Your task to perform on an android device: Search for Italian restaurants on Maps Image 0: 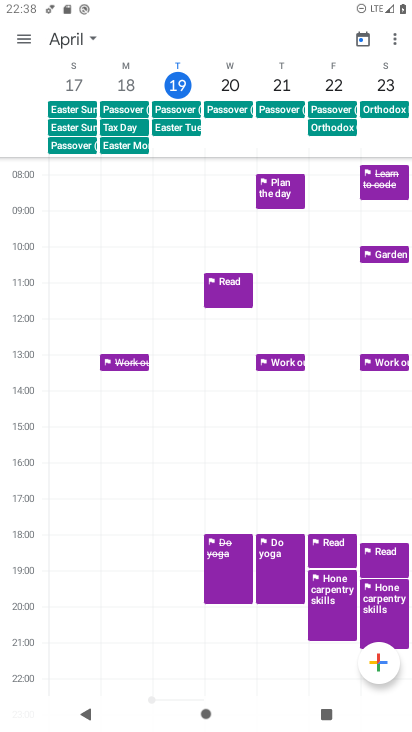
Step 0: press home button
Your task to perform on an android device: Search for Italian restaurants on Maps Image 1: 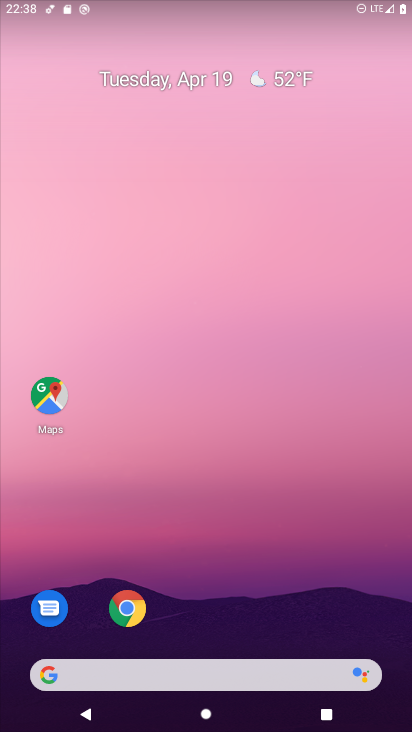
Step 1: click (39, 394)
Your task to perform on an android device: Search for Italian restaurants on Maps Image 2: 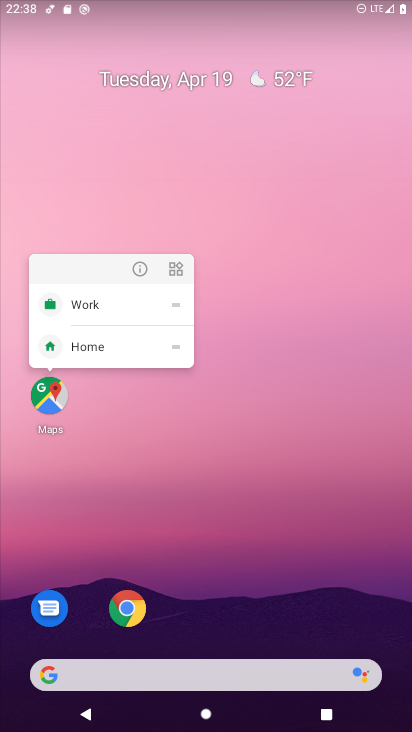
Step 2: click (37, 398)
Your task to perform on an android device: Search for Italian restaurants on Maps Image 3: 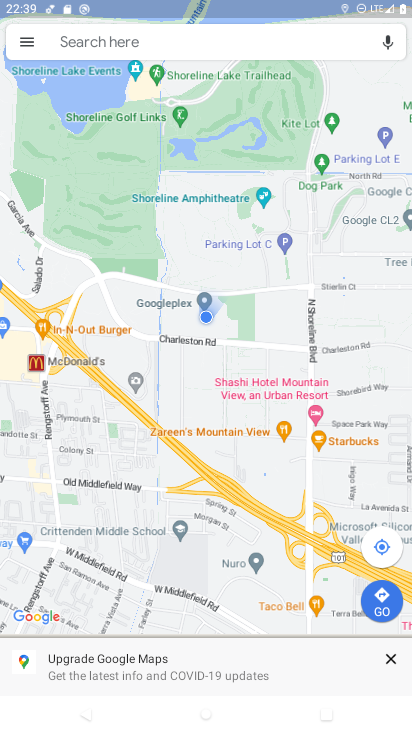
Step 3: click (191, 38)
Your task to perform on an android device: Search for Italian restaurants on Maps Image 4: 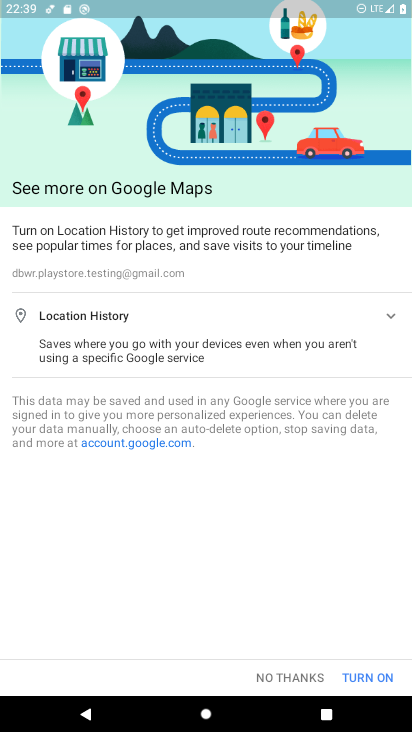
Step 4: click (302, 673)
Your task to perform on an android device: Search for Italian restaurants on Maps Image 5: 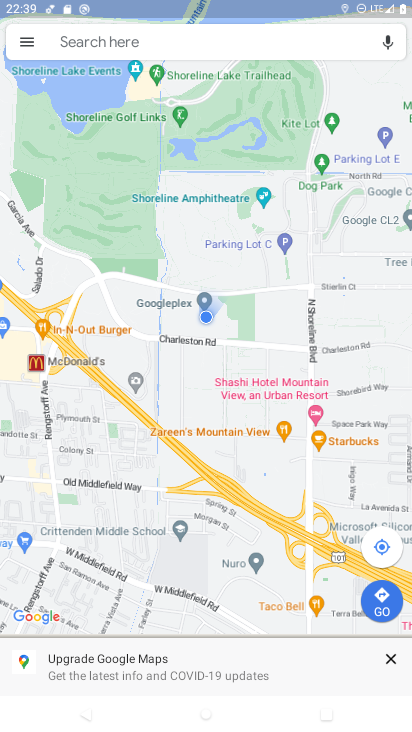
Step 5: click (126, 32)
Your task to perform on an android device: Search for Italian restaurants on Maps Image 6: 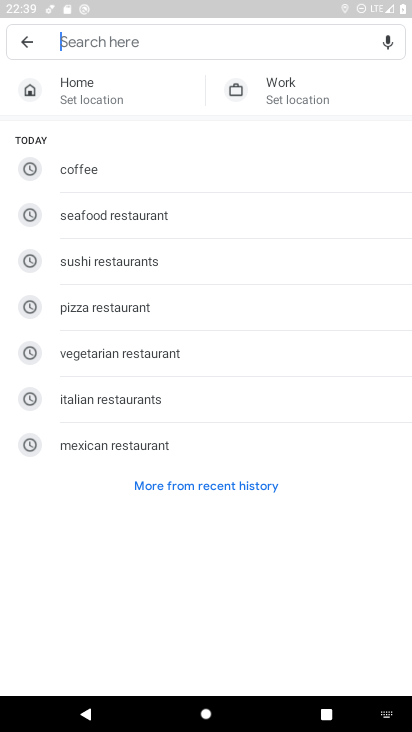
Step 6: click (252, 405)
Your task to perform on an android device: Search for Italian restaurants on Maps Image 7: 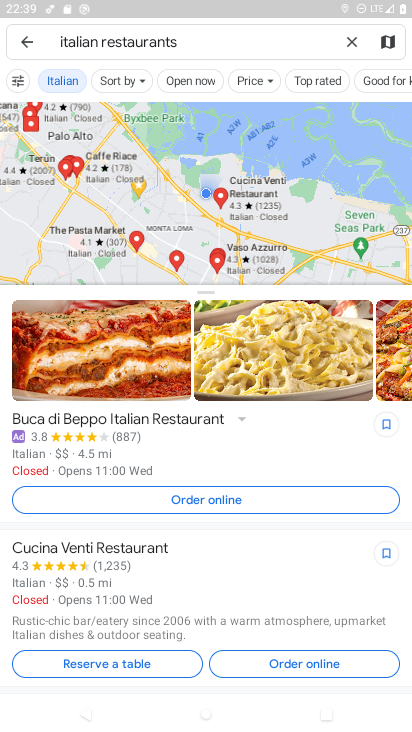
Step 7: task complete